Your task to perform on an android device: turn on data saver in the chrome app Image 0: 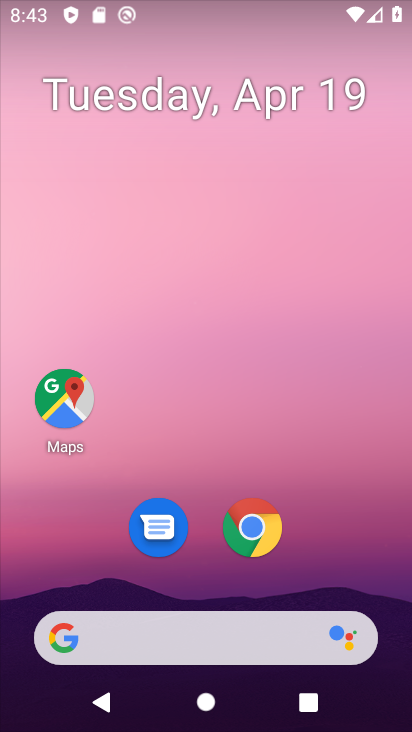
Step 0: drag from (400, 579) to (343, 163)
Your task to perform on an android device: turn on data saver in the chrome app Image 1: 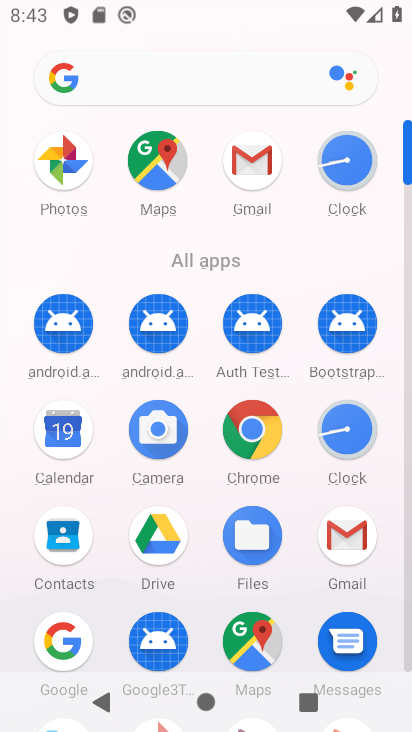
Step 1: click (257, 441)
Your task to perform on an android device: turn on data saver in the chrome app Image 2: 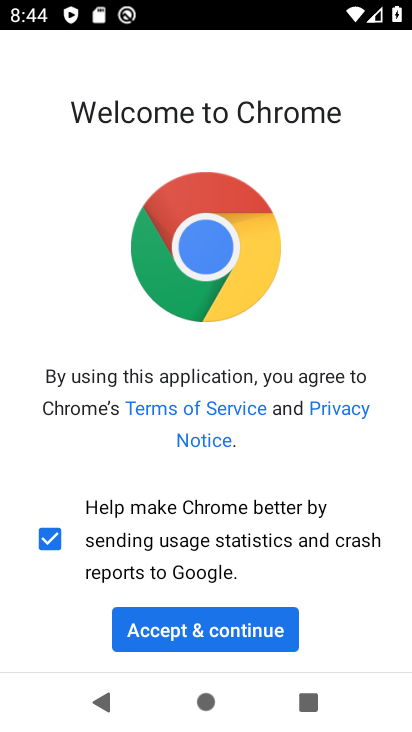
Step 2: click (182, 617)
Your task to perform on an android device: turn on data saver in the chrome app Image 3: 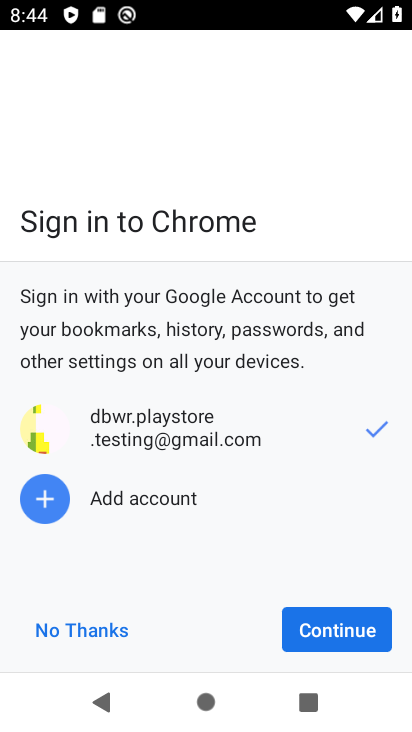
Step 3: click (322, 623)
Your task to perform on an android device: turn on data saver in the chrome app Image 4: 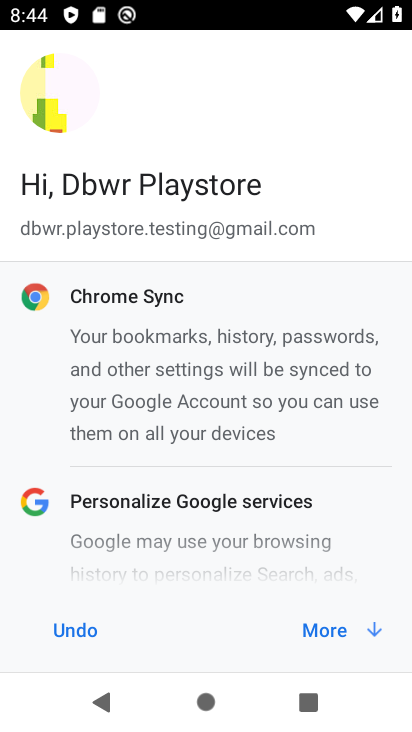
Step 4: click (337, 626)
Your task to perform on an android device: turn on data saver in the chrome app Image 5: 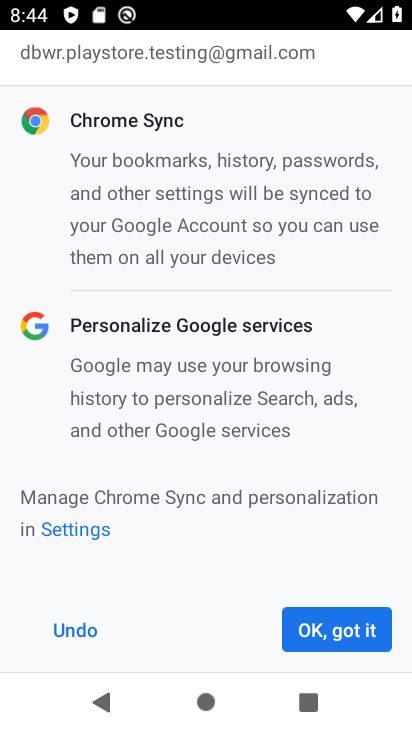
Step 5: click (356, 632)
Your task to perform on an android device: turn on data saver in the chrome app Image 6: 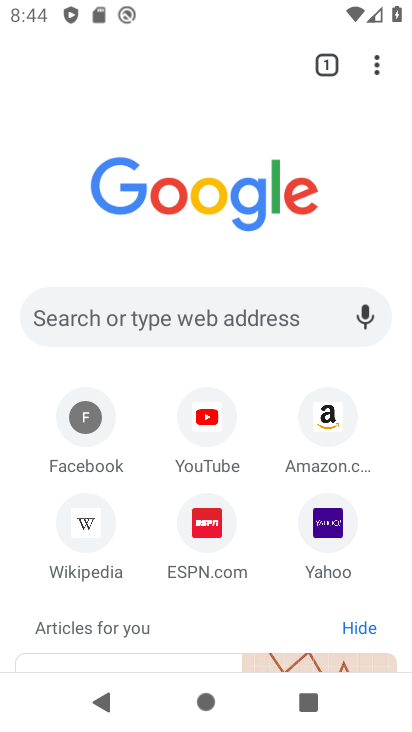
Step 6: click (379, 70)
Your task to perform on an android device: turn on data saver in the chrome app Image 7: 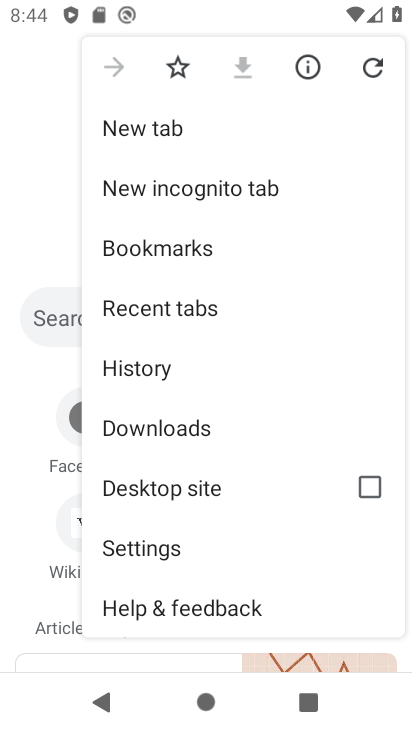
Step 7: click (211, 550)
Your task to perform on an android device: turn on data saver in the chrome app Image 8: 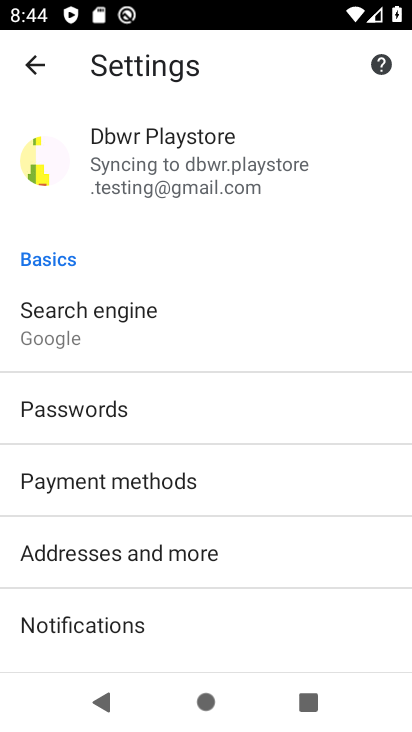
Step 8: drag from (196, 605) to (235, 86)
Your task to perform on an android device: turn on data saver in the chrome app Image 9: 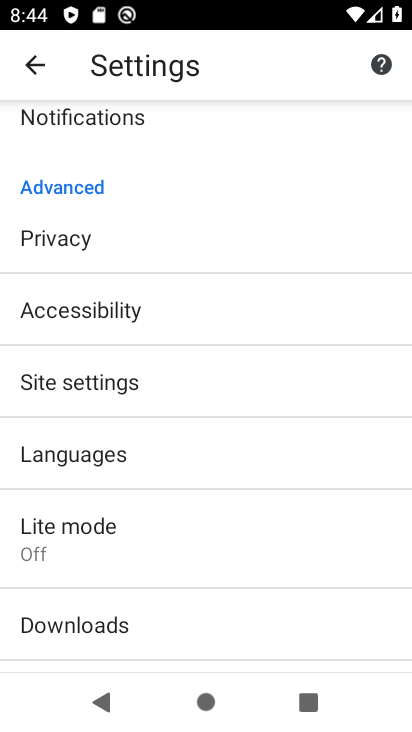
Step 9: click (245, 537)
Your task to perform on an android device: turn on data saver in the chrome app Image 10: 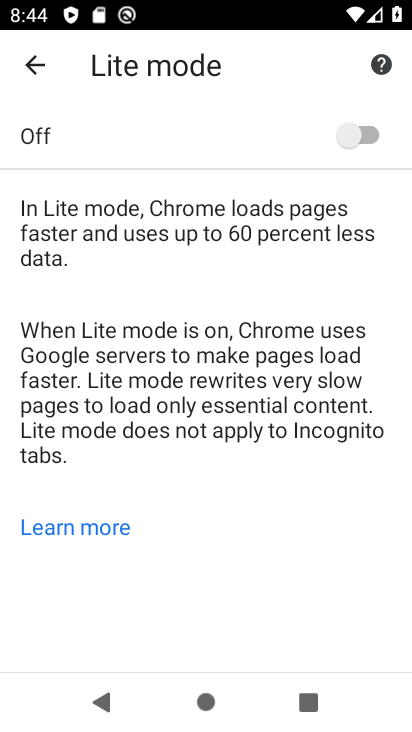
Step 10: click (374, 126)
Your task to perform on an android device: turn on data saver in the chrome app Image 11: 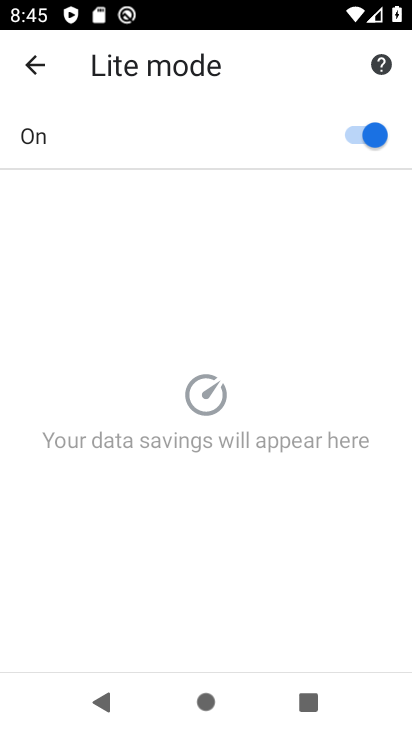
Step 11: task complete